Your task to perform on an android device: When is my next meeting? Image 0: 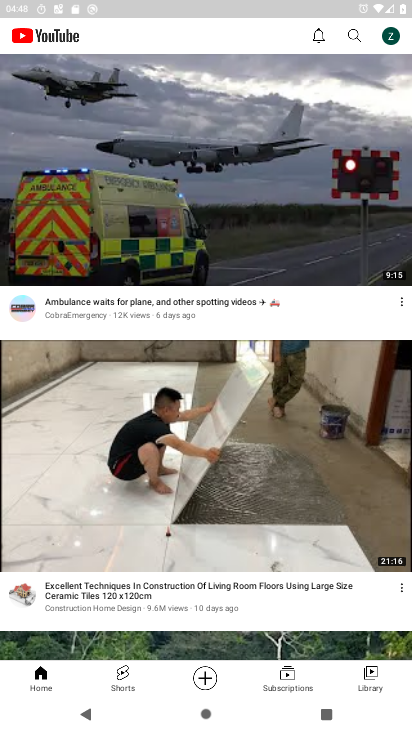
Step 0: press home button
Your task to perform on an android device: When is my next meeting? Image 1: 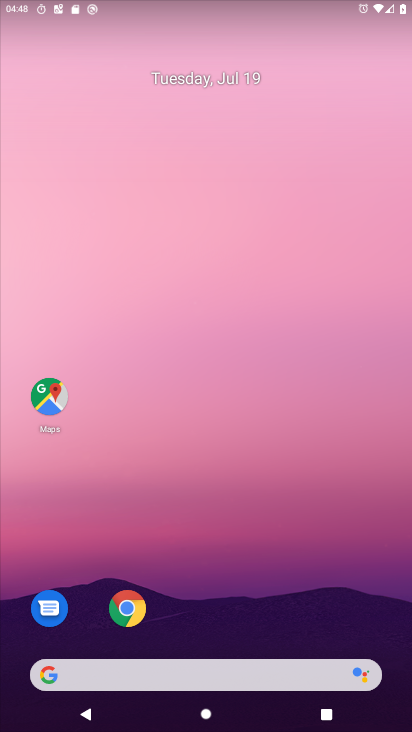
Step 1: drag from (250, 679) to (183, 4)
Your task to perform on an android device: When is my next meeting? Image 2: 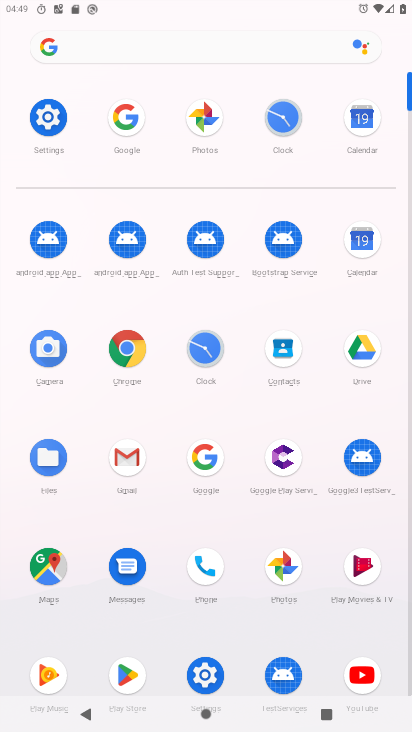
Step 2: click (364, 245)
Your task to perform on an android device: When is my next meeting? Image 3: 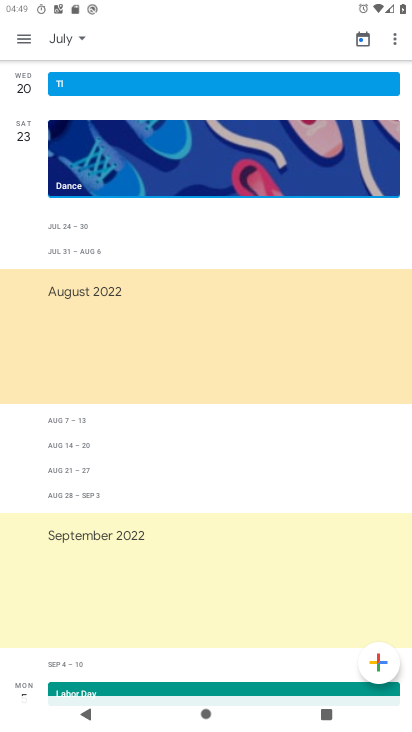
Step 3: click (364, 42)
Your task to perform on an android device: When is my next meeting? Image 4: 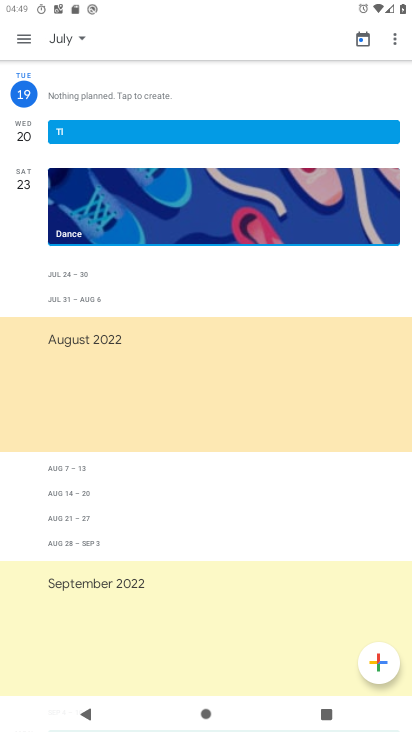
Step 4: click (82, 36)
Your task to perform on an android device: When is my next meeting? Image 5: 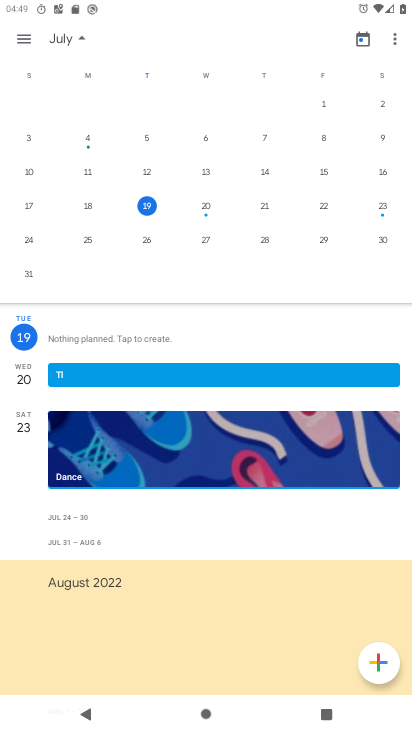
Step 5: click (205, 205)
Your task to perform on an android device: When is my next meeting? Image 6: 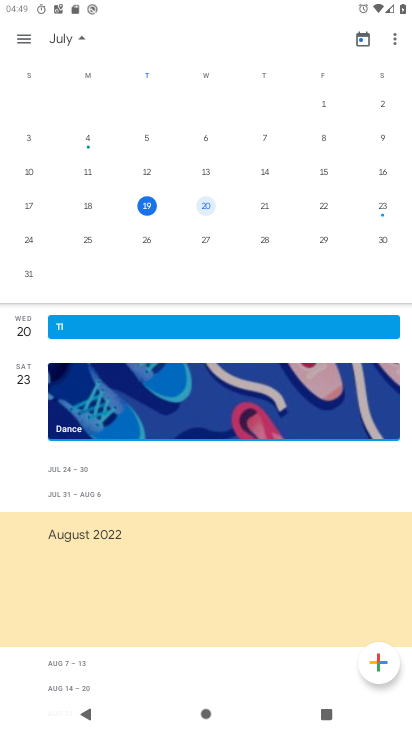
Step 6: click (22, 38)
Your task to perform on an android device: When is my next meeting? Image 7: 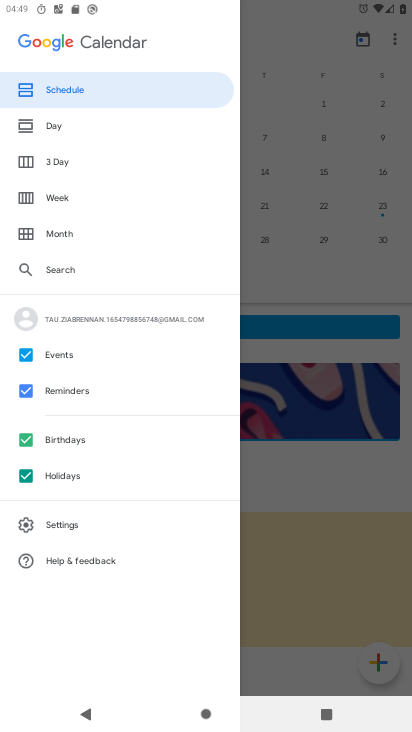
Step 7: click (54, 90)
Your task to perform on an android device: When is my next meeting? Image 8: 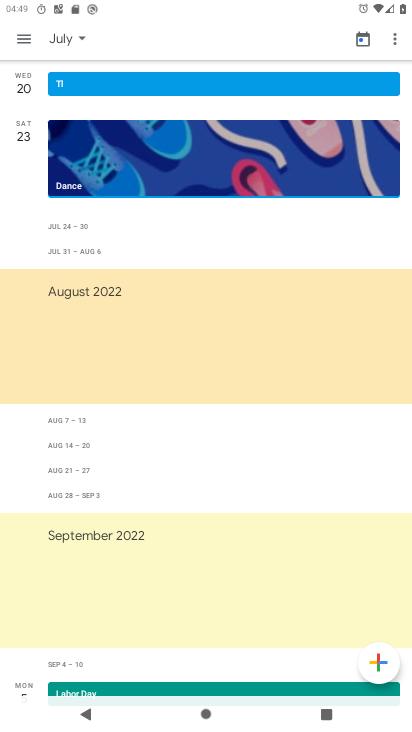
Step 8: task complete